Your task to perform on an android device: Open Google Maps Image 0: 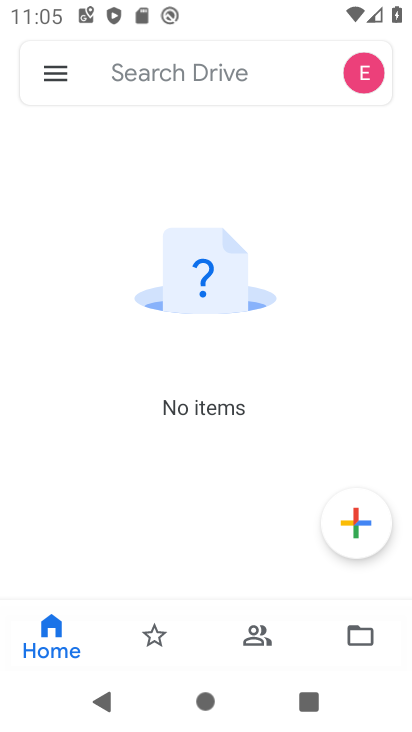
Step 0: press home button
Your task to perform on an android device: Open Google Maps Image 1: 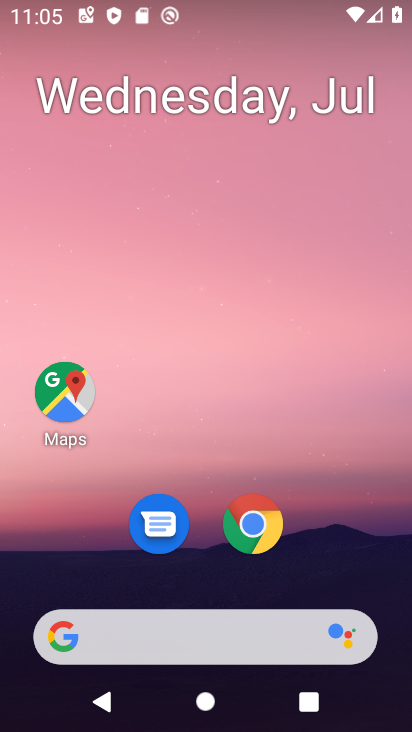
Step 1: click (60, 393)
Your task to perform on an android device: Open Google Maps Image 2: 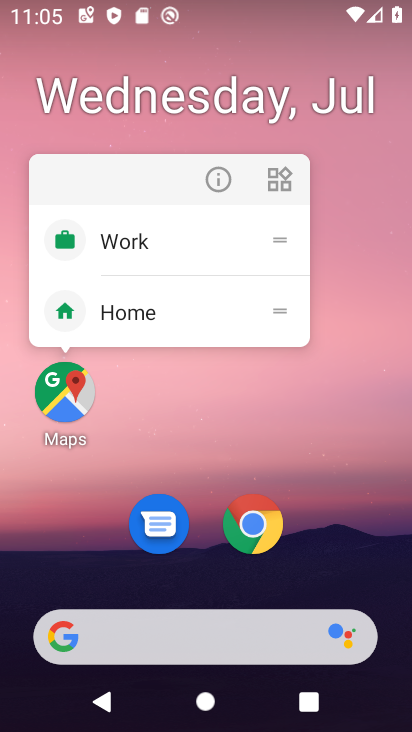
Step 2: click (60, 394)
Your task to perform on an android device: Open Google Maps Image 3: 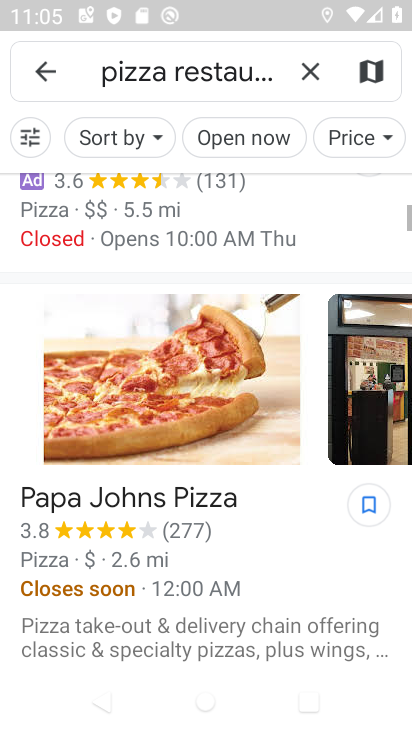
Step 3: click (46, 69)
Your task to perform on an android device: Open Google Maps Image 4: 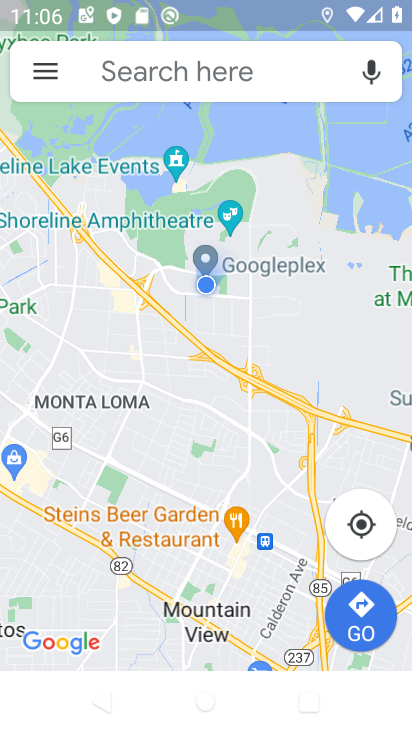
Step 4: task complete